Your task to perform on an android device: Open my contact list Image 0: 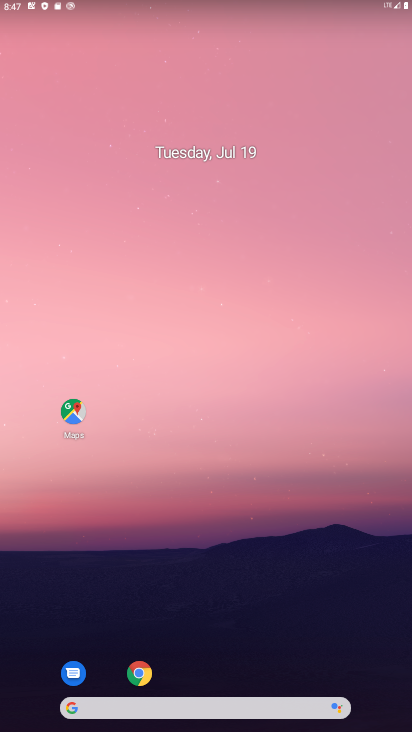
Step 0: drag from (374, 713) to (245, 38)
Your task to perform on an android device: Open my contact list Image 1: 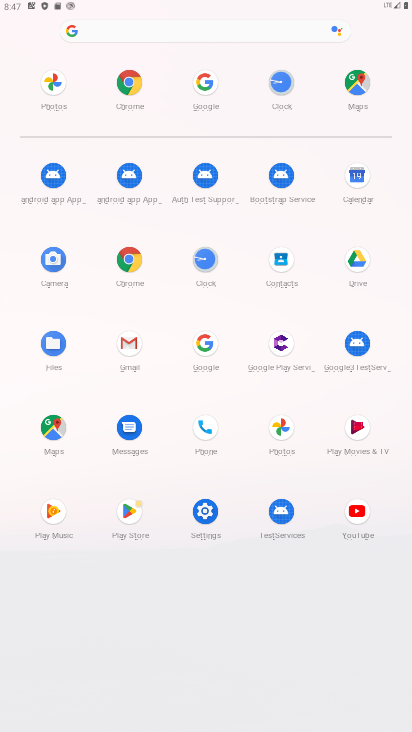
Step 1: click (277, 261)
Your task to perform on an android device: Open my contact list Image 2: 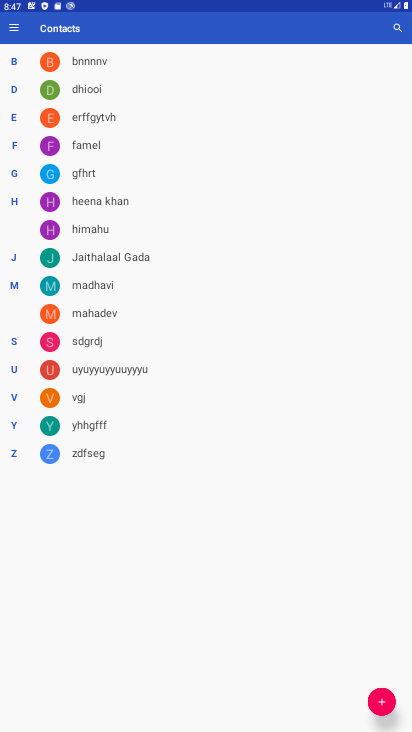
Step 2: task complete